Your task to perform on an android device: check data usage Image 0: 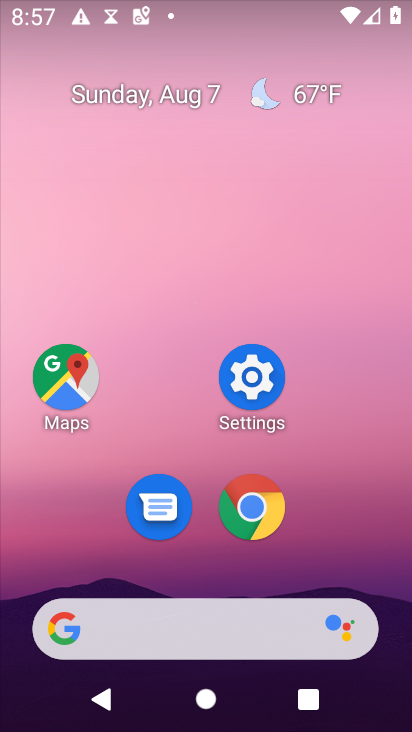
Step 0: click (252, 374)
Your task to perform on an android device: check data usage Image 1: 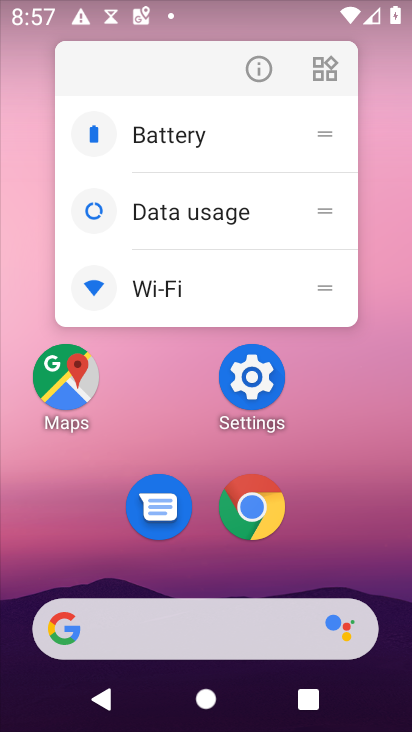
Step 1: click (252, 374)
Your task to perform on an android device: check data usage Image 2: 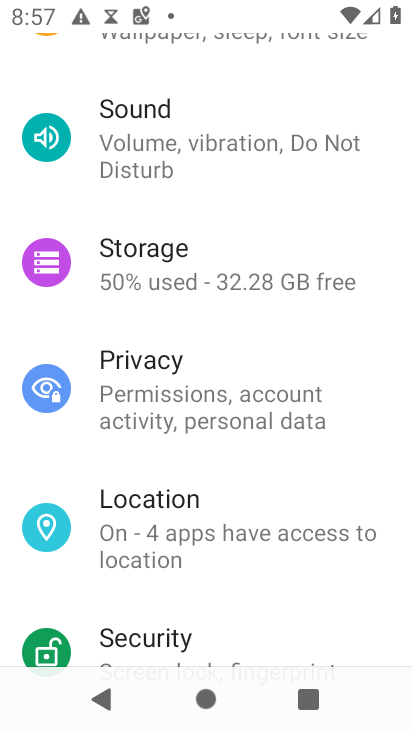
Step 2: drag from (315, 85) to (284, 617)
Your task to perform on an android device: check data usage Image 3: 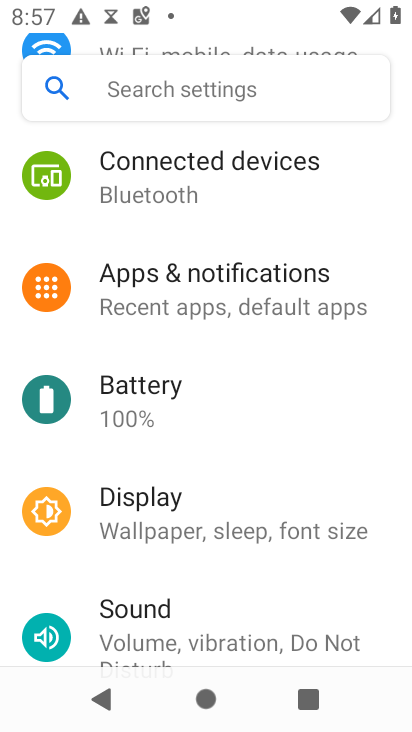
Step 3: drag from (317, 205) to (337, 602)
Your task to perform on an android device: check data usage Image 4: 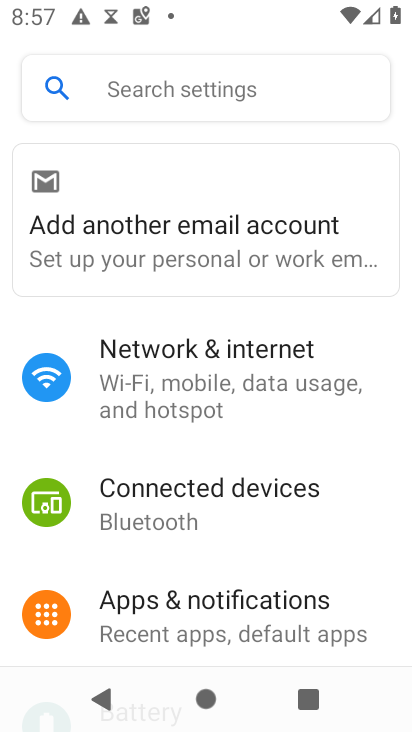
Step 4: click (225, 356)
Your task to perform on an android device: check data usage Image 5: 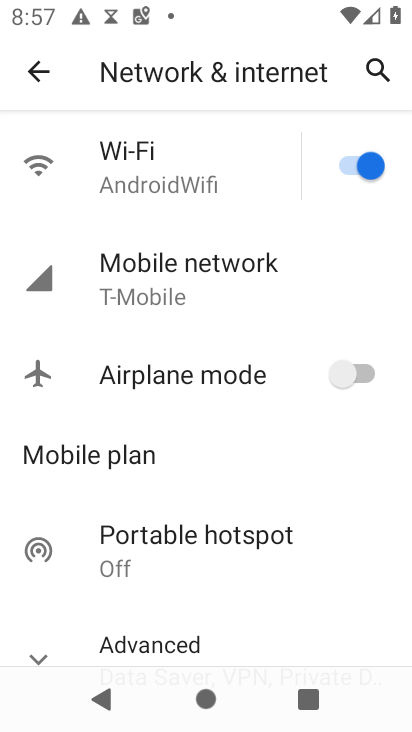
Step 5: click (147, 185)
Your task to perform on an android device: check data usage Image 6: 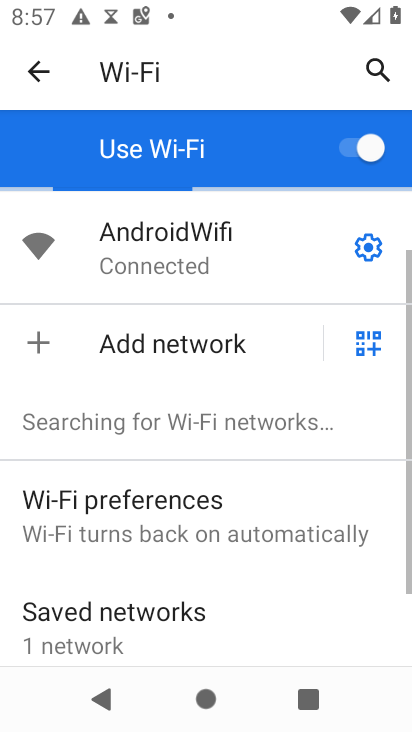
Step 6: drag from (280, 590) to (339, 163)
Your task to perform on an android device: check data usage Image 7: 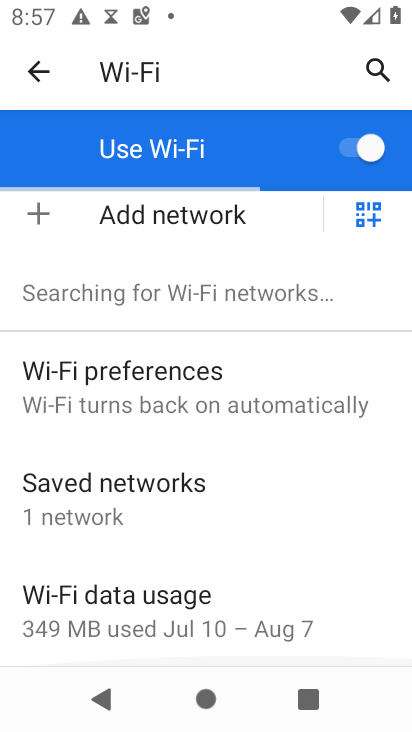
Step 7: click (183, 605)
Your task to perform on an android device: check data usage Image 8: 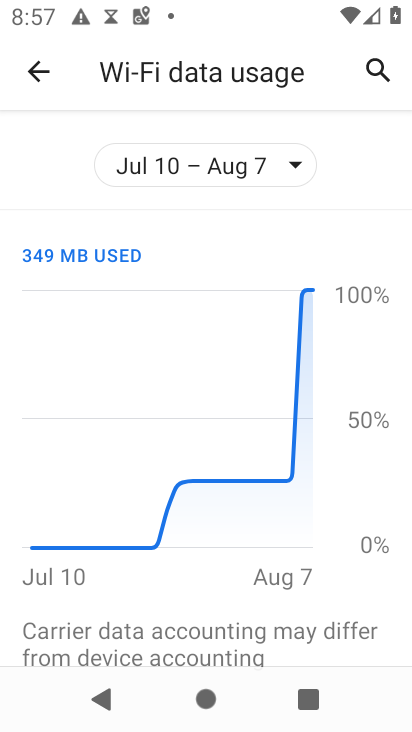
Step 8: task complete